Your task to perform on an android device: What's the weather going to be this weekend? Image 0: 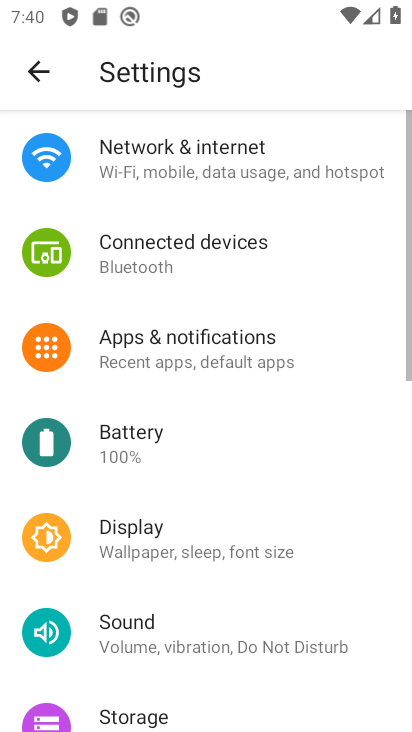
Step 0: press home button
Your task to perform on an android device: What's the weather going to be this weekend? Image 1: 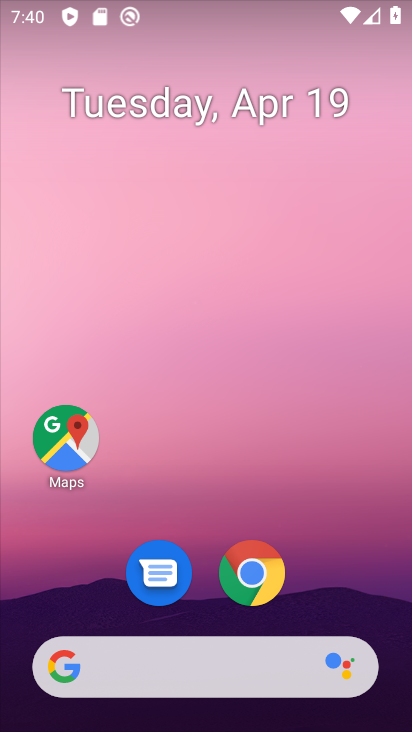
Step 1: drag from (333, 594) to (324, 0)
Your task to perform on an android device: What's the weather going to be this weekend? Image 2: 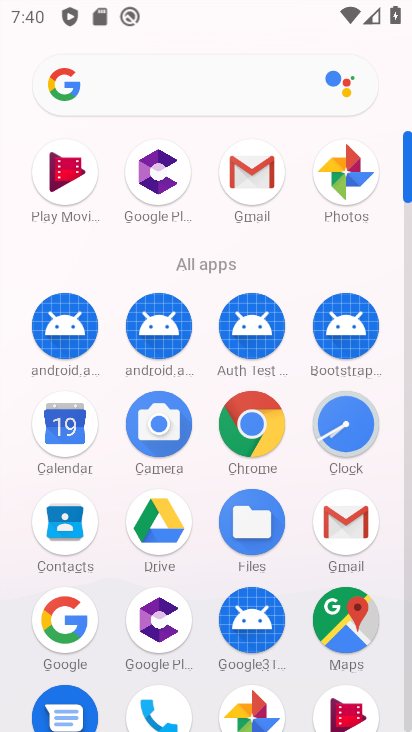
Step 2: click (255, 441)
Your task to perform on an android device: What's the weather going to be this weekend? Image 3: 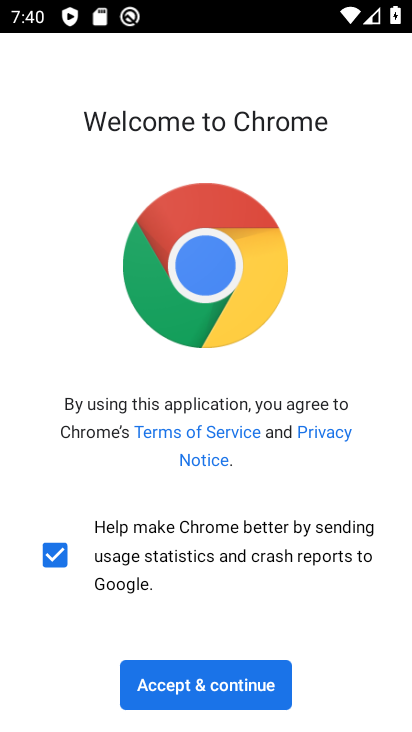
Step 3: click (265, 692)
Your task to perform on an android device: What's the weather going to be this weekend? Image 4: 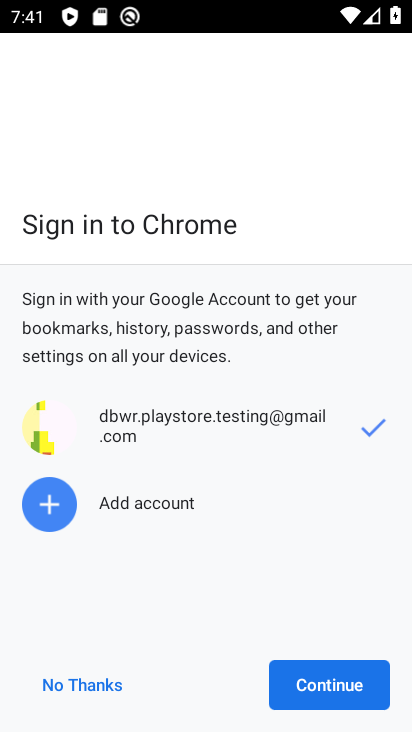
Step 4: click (301, 685)
Your task to perform on an android device: What's the weather going to be this weekend? Image 5: 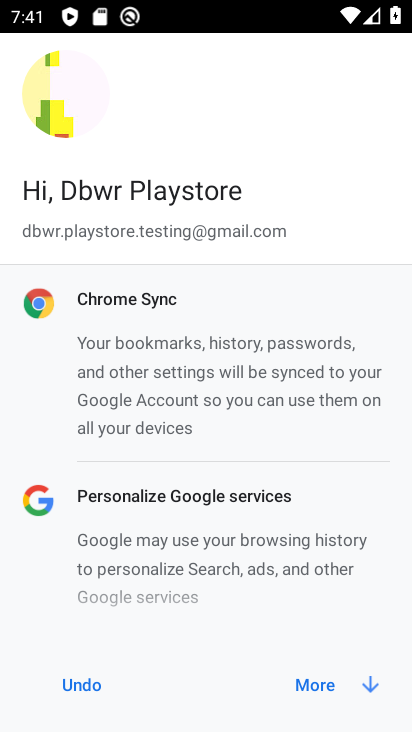
Step 5: click (301, 685)
Your task to perform on an android device: What's the weather going to be this weekend? Image 6: 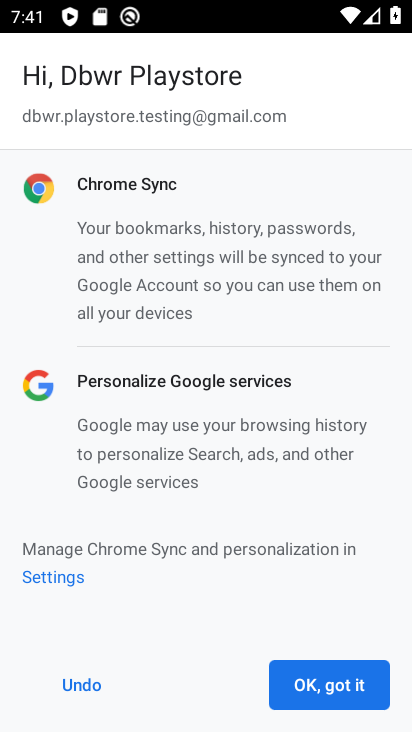
Step 6: click (301, 685)
Your task to perform on an android device: What's the weather going to be this weekend? Image 7: 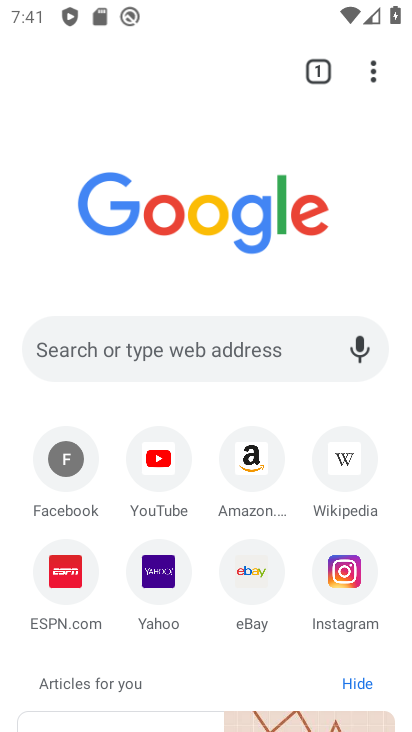
Step 7: click (232, 351)
Your task to perform on an android device: What's the weather going to be this weekend? Image 8: 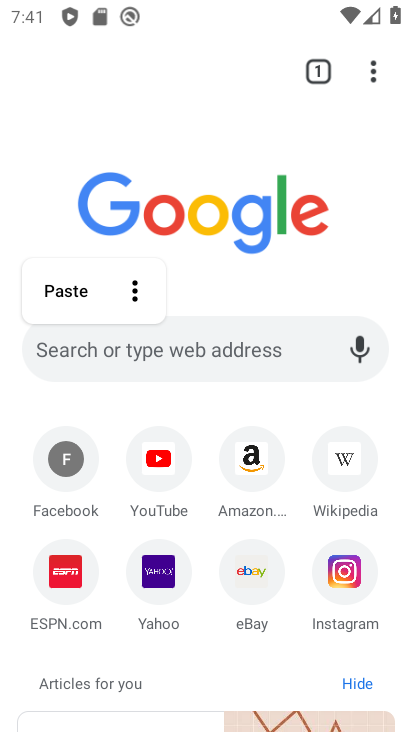
Step 8: click (209, 338)
Your task to perform on an android device: What's the weather going to be this weekend? Image 9: 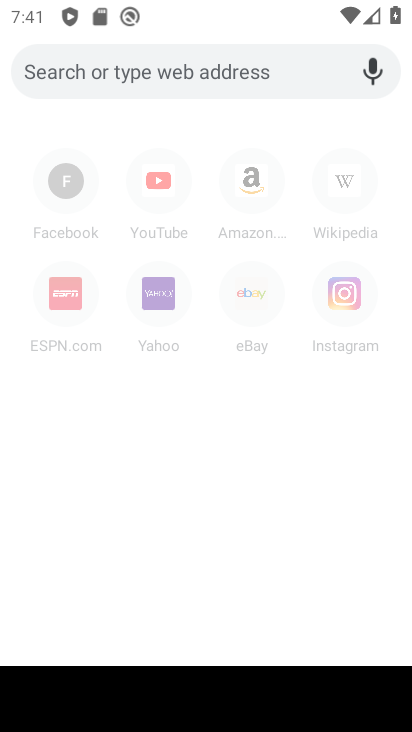
Step 9: type "weather"
Your task to perform on an android device: What's the weather going to be this weekend? Image 10: 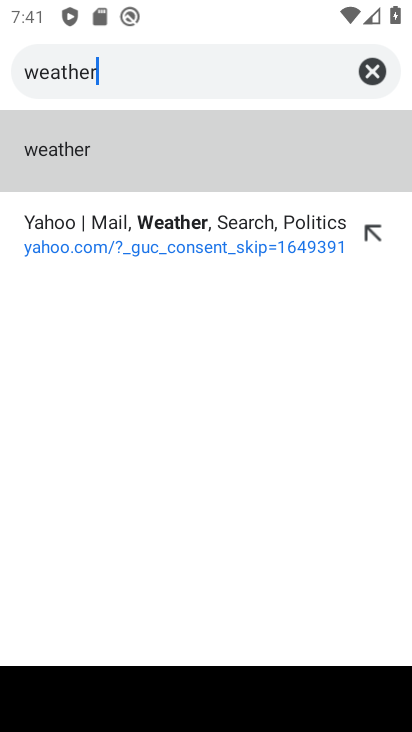
Step 10: click (91, 154)
Your task to perform on an android device: What's the weather going to be this weekend? Image 11: 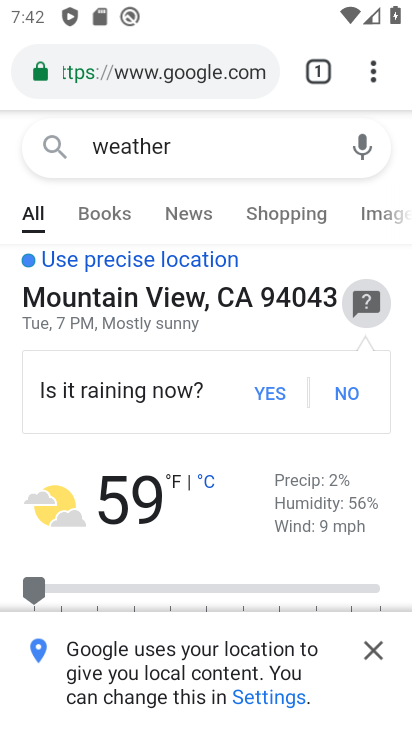
Step 11: task complete